Your task to perform on an android device: turn off priority inbox in the gmail app Image 0: 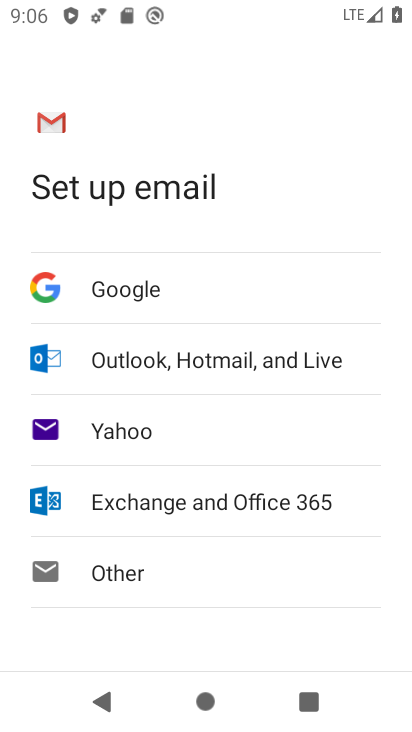
Step 0: press home button
Your task to perform on an android device: turn off priority inbox in the gmail app Image 1: 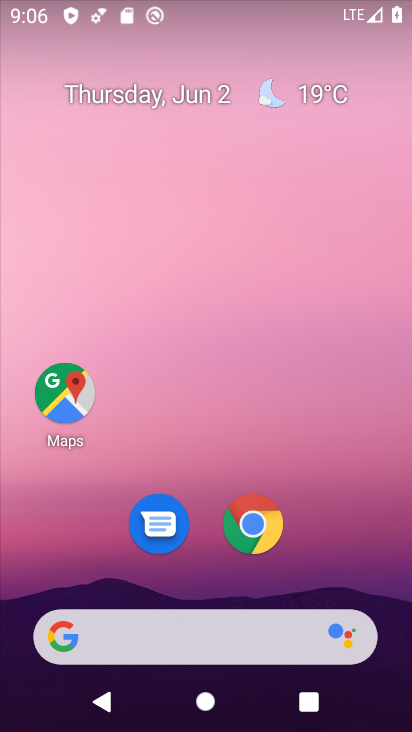
Step 1: drag from (305, 507) to (300, 0)
Your task to perform on an android device: turn off priority inbox in the gmail app Image 2: 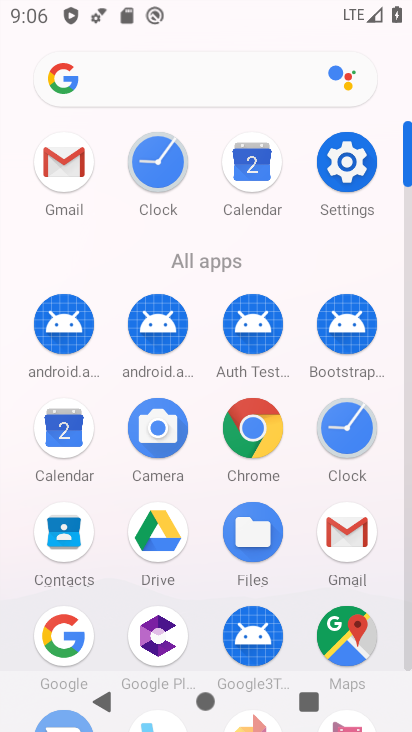
Step 2: click (67, 162)
Your task to perform on an android device: turn off priority inbox in the gmail app Image 3: 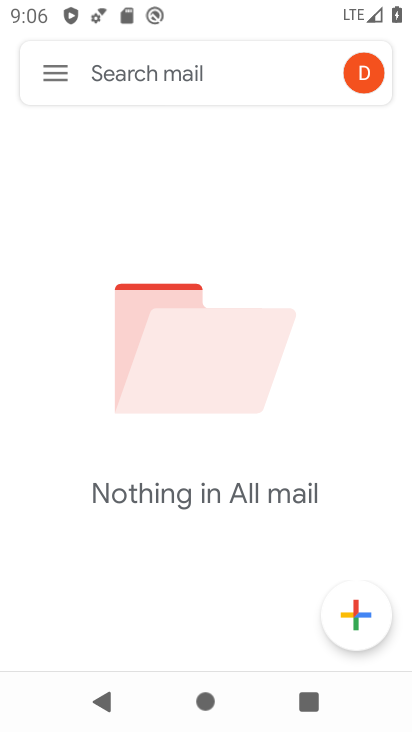
Step 3: click (58, 68)
Your task to perform on an android device: turn off priority inbox in the gmail app Image 4: 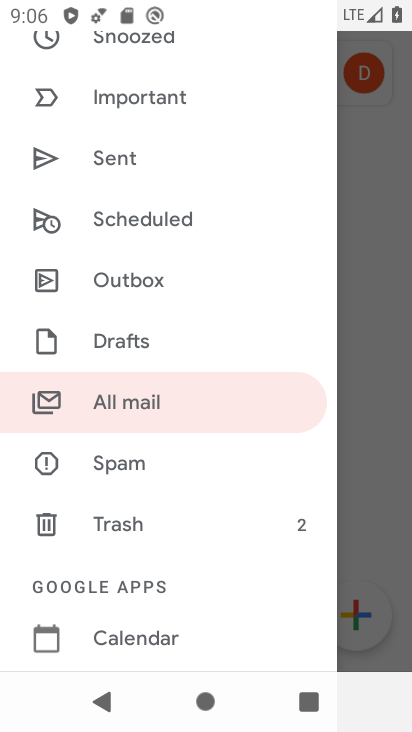
Step 4: drag from (162, 494) to (235, 99)
Your task to perform on an android device: turn off priority inbox in the gmail app Image 5: 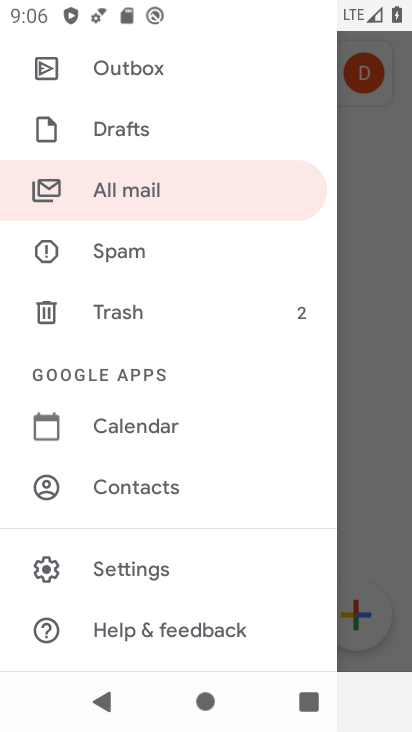
Step 5: click (160, 568)
Your task to perform on an android device: turn off priority inbox in the gmail app Image 6: 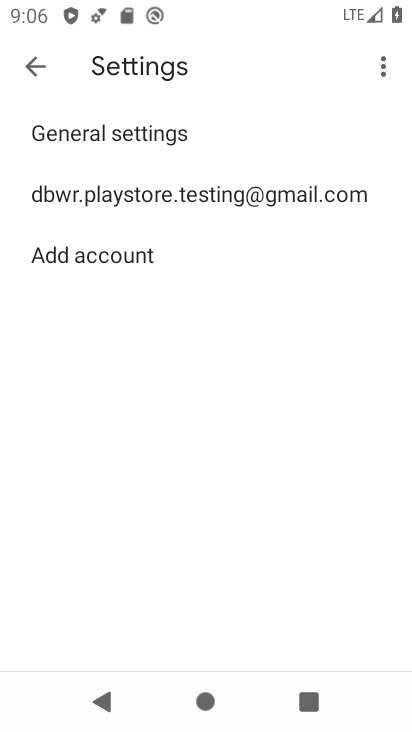
Step 6: click (227, 203)
Your task to perform on an android device: turn off priority inbox in the gmail app Image 7: 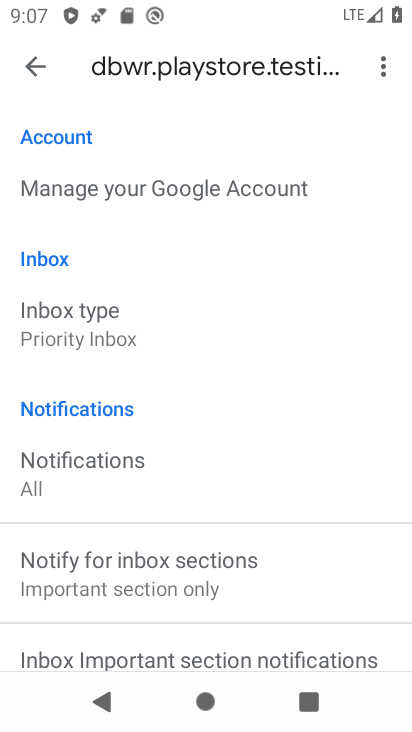
Step 7: click (95, 326)
Your task to perform on an android device: turn off priority inbox in the gmail app Image 8: 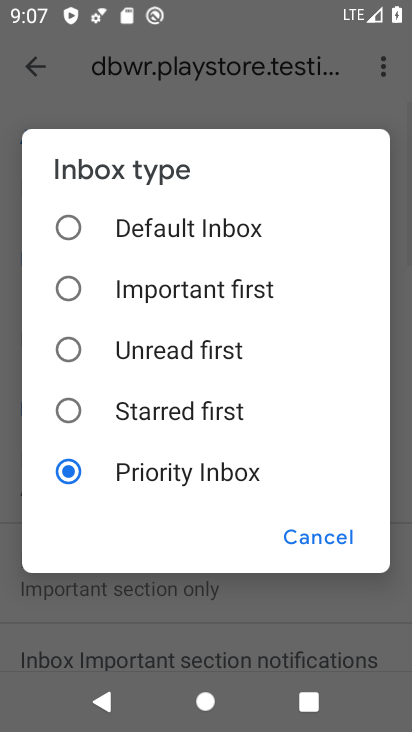
Step 8: click (79, 224)
Your task to perform on an android device: turn off priority inbox in the gmail app Image 9: 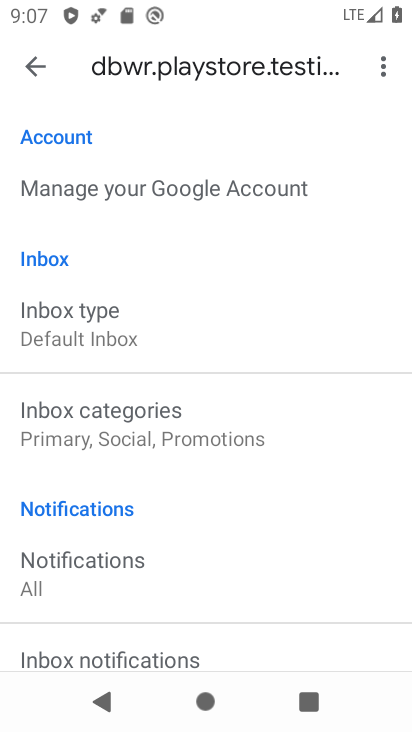
Step 9: task complete